Your task to perform on an android device: change notifications settings Image 0: 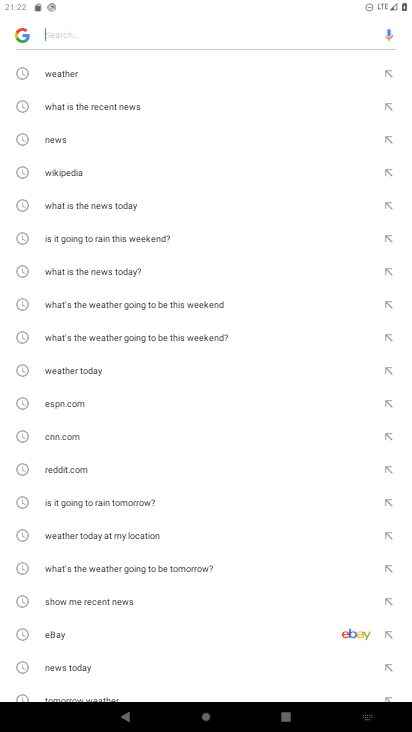
Step 0: press home button
Your task to perform on an android device: change notifications settings Image 1: 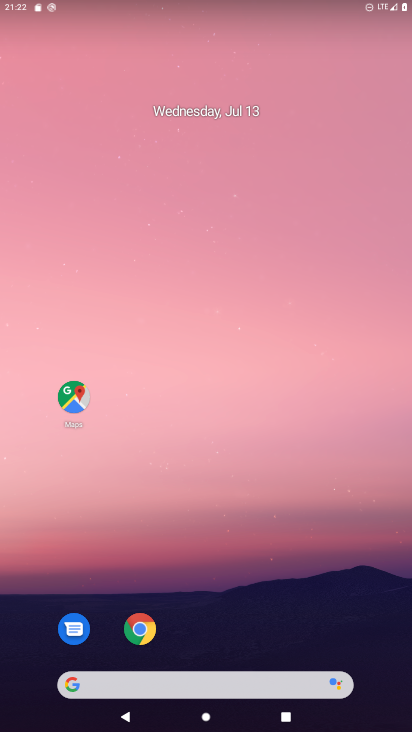
Step 1: drag from (200, 564) to (196, 44)
Your task to perform on an android device: change notifications settings Image 2: 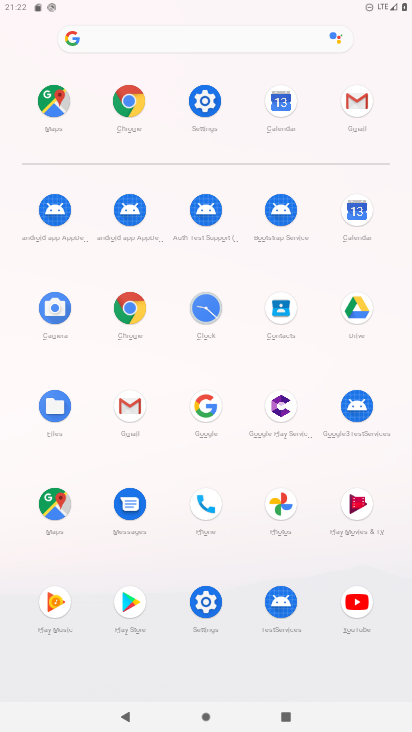
Step 2: click (198, 598)
Your task to perform on an android device: change notifications settings Image 3: 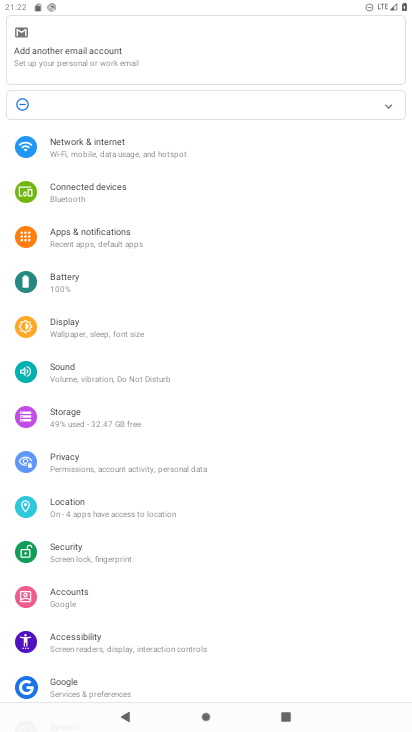
Step 3: click (88, 240)
Your task to perform on an android device: change notifications settings Image 4: 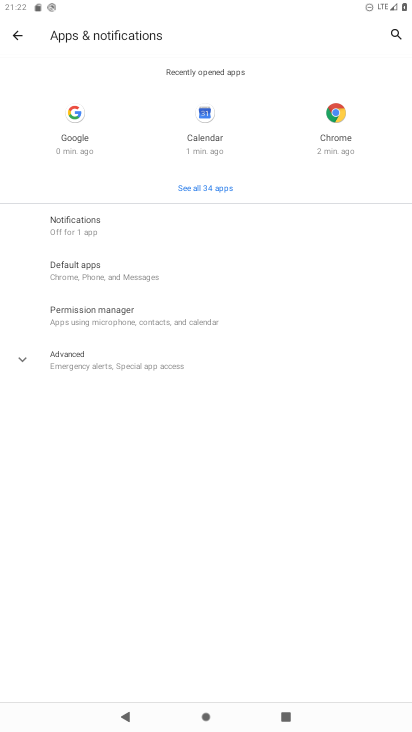
Step 4: click (72, 222)
Your task to perform on an android device: change notifications settings Image 5: 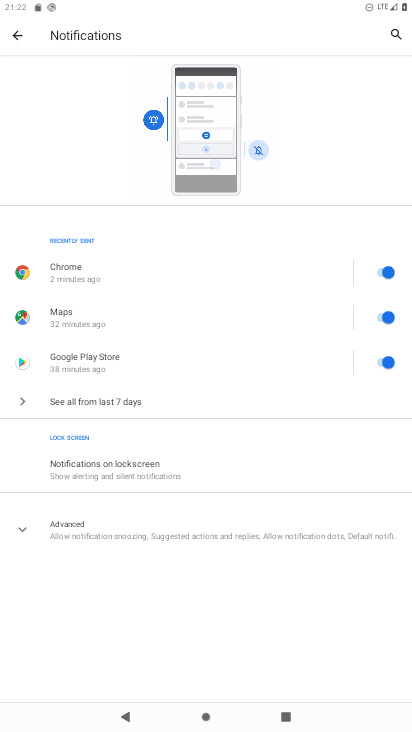
Step 5: click (372, 265)
Your task to perform on an android device: change notifications settings Image 6: 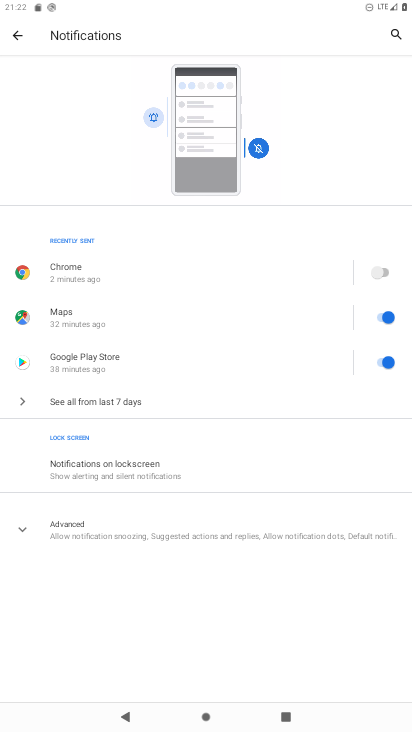
Step 6: task complete